Your task to perform on an android device: Open Google Maps Image 0: 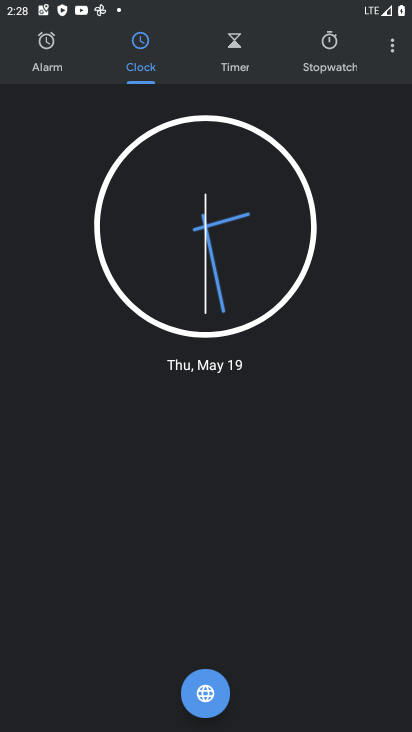
Step 0: press home button
Your task to perform on an android device: Open Google Maps Image 1: 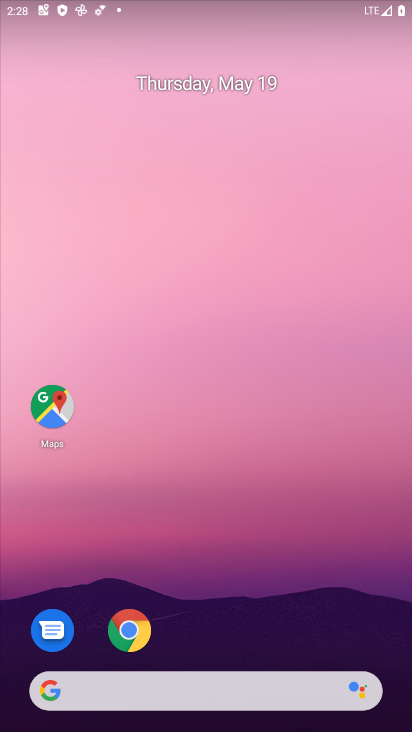
Step 1: click (54, 406)
Your task to perform on an android device: Open Google Maps Image 2: 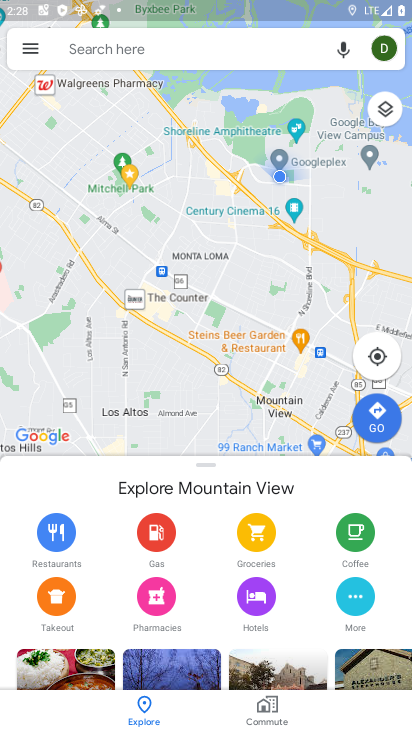
Step 2: task complete